Your task to perform on an android device: Empty the shopping cart on target.com. Image 0: 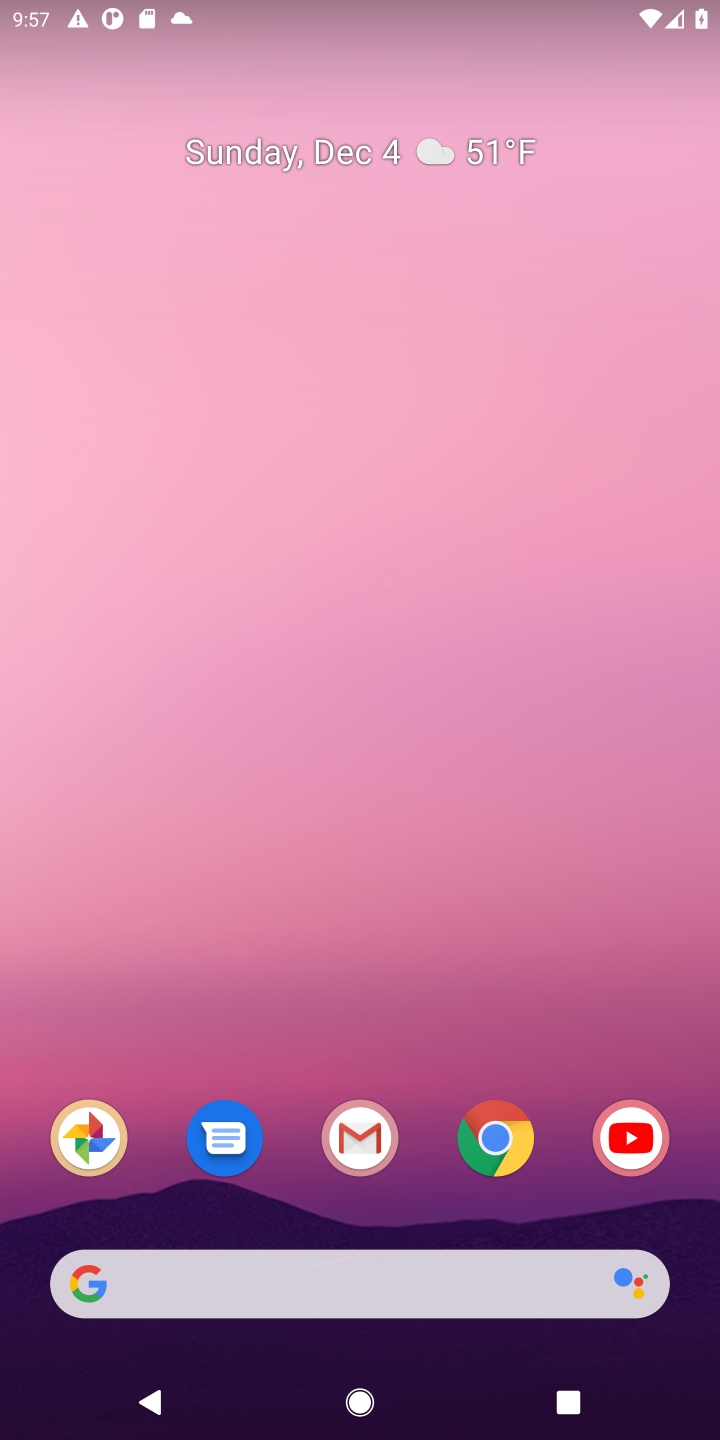
Step 0: click (488, 1154)
Your task to perform on an android device: Empty the shopping cart on target.com. Image 1: 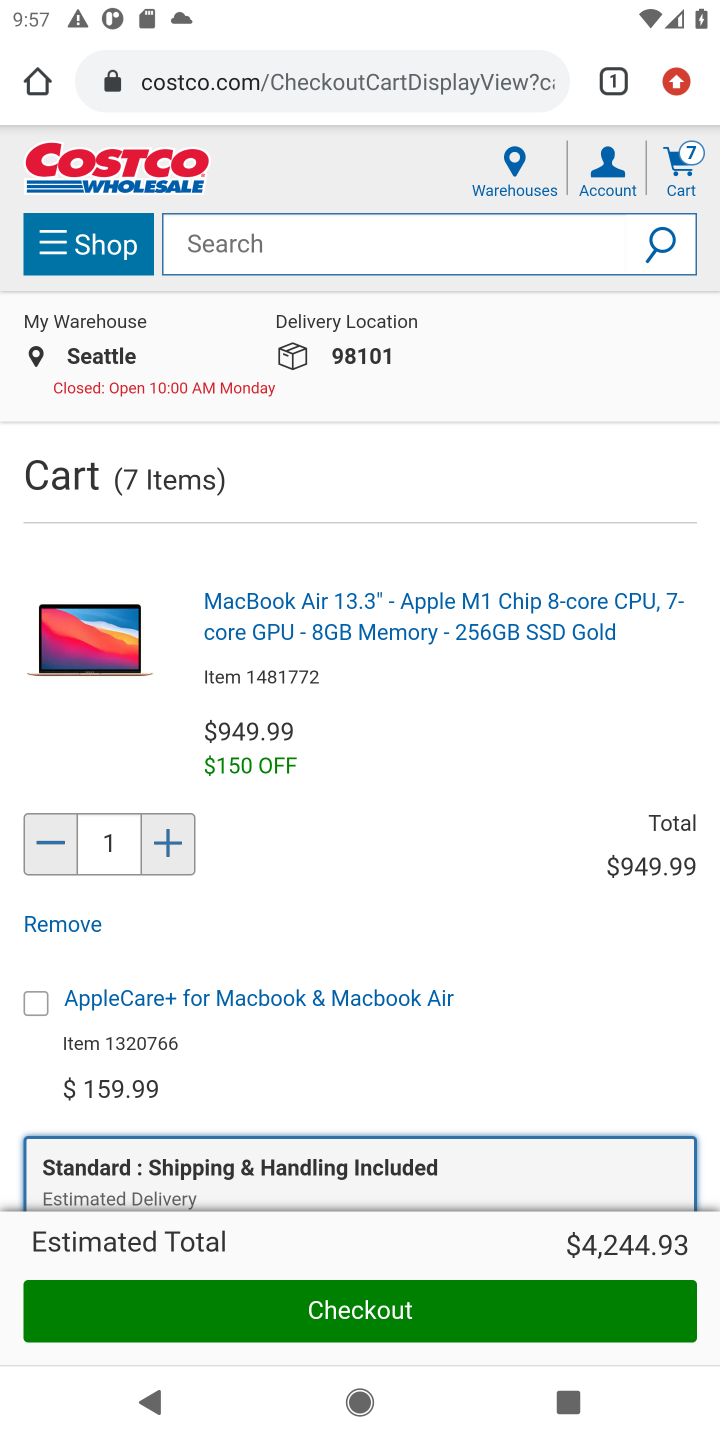
Step 1: click (388, 86)
Your task to perform on an android device: Empty the shopping cart on target.com. Image 2: 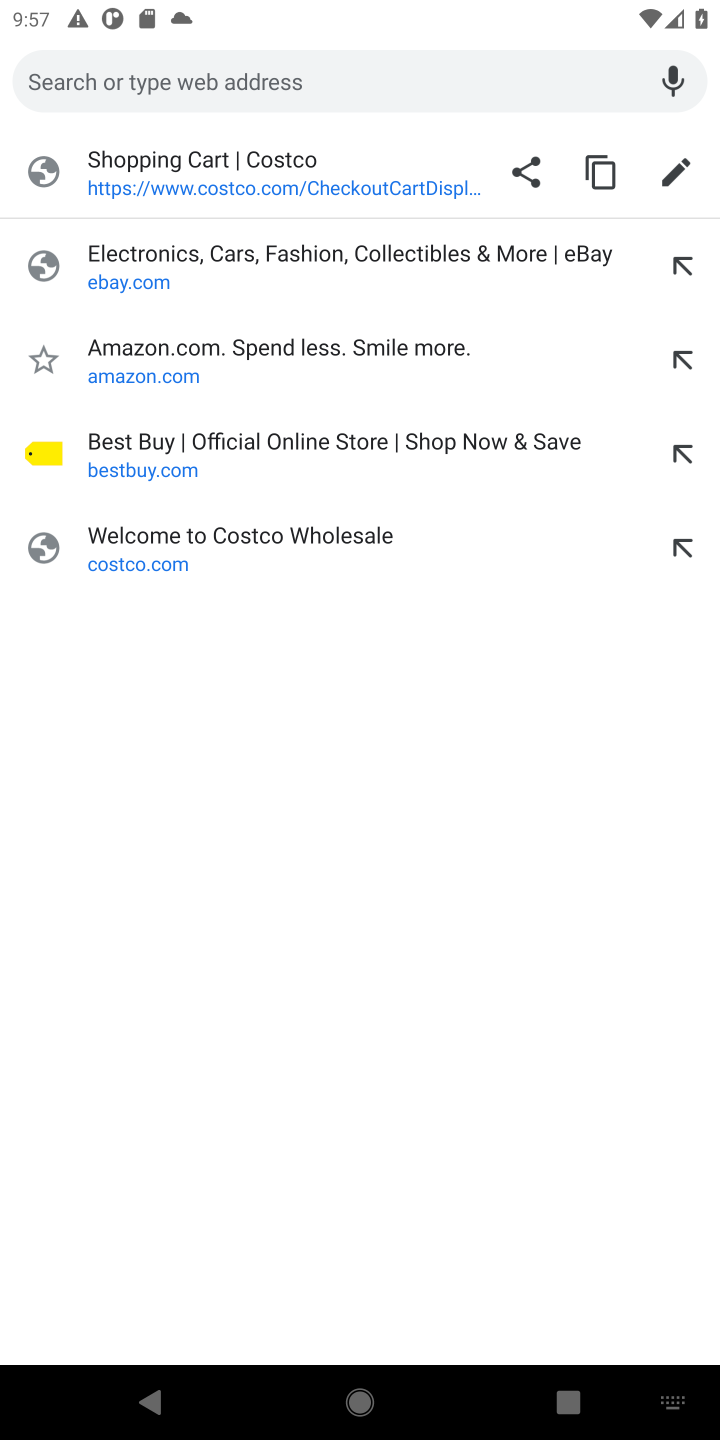
Step 2: type "target.com"
Your task to perform on an android device: Empty the shopping cart on target.com. Image 3: 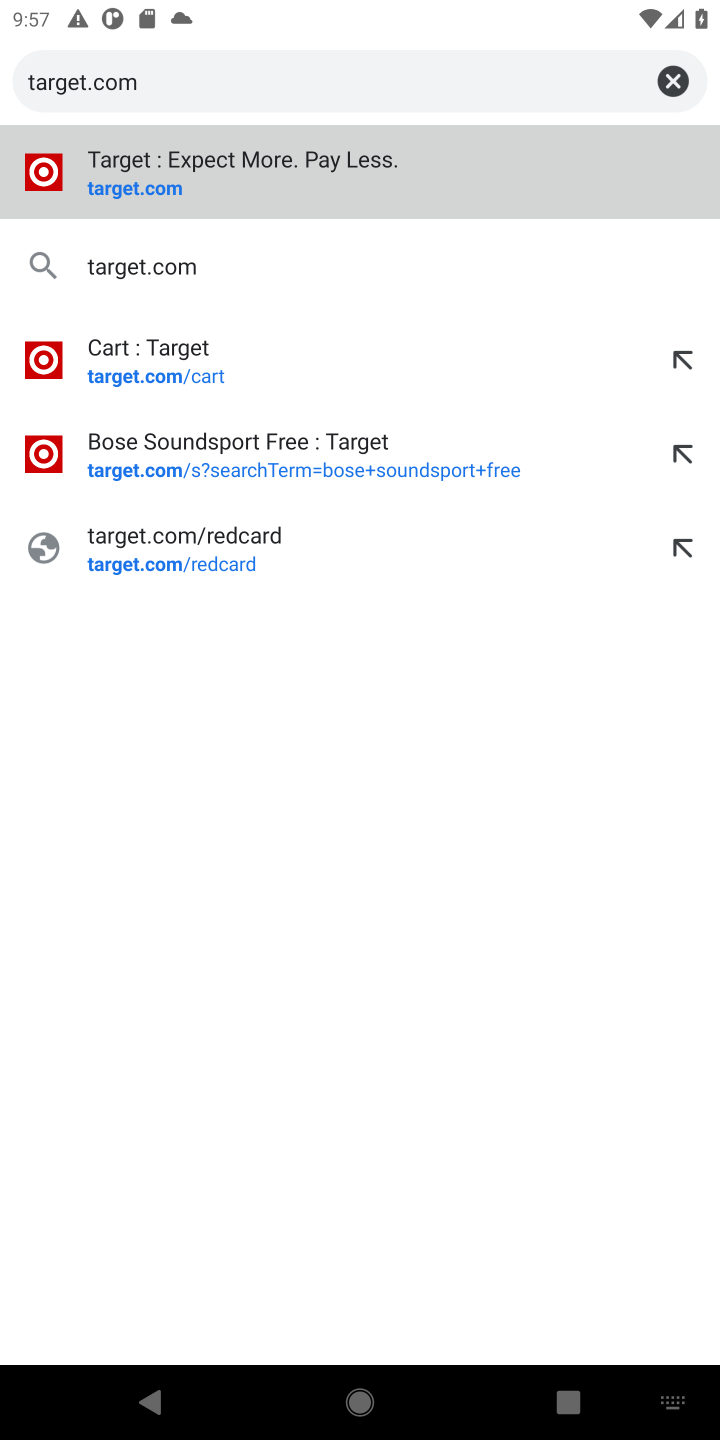
Step 3: press enter
Your task to perform on an android device: Empty the shopping cart on target.com. Image 4: 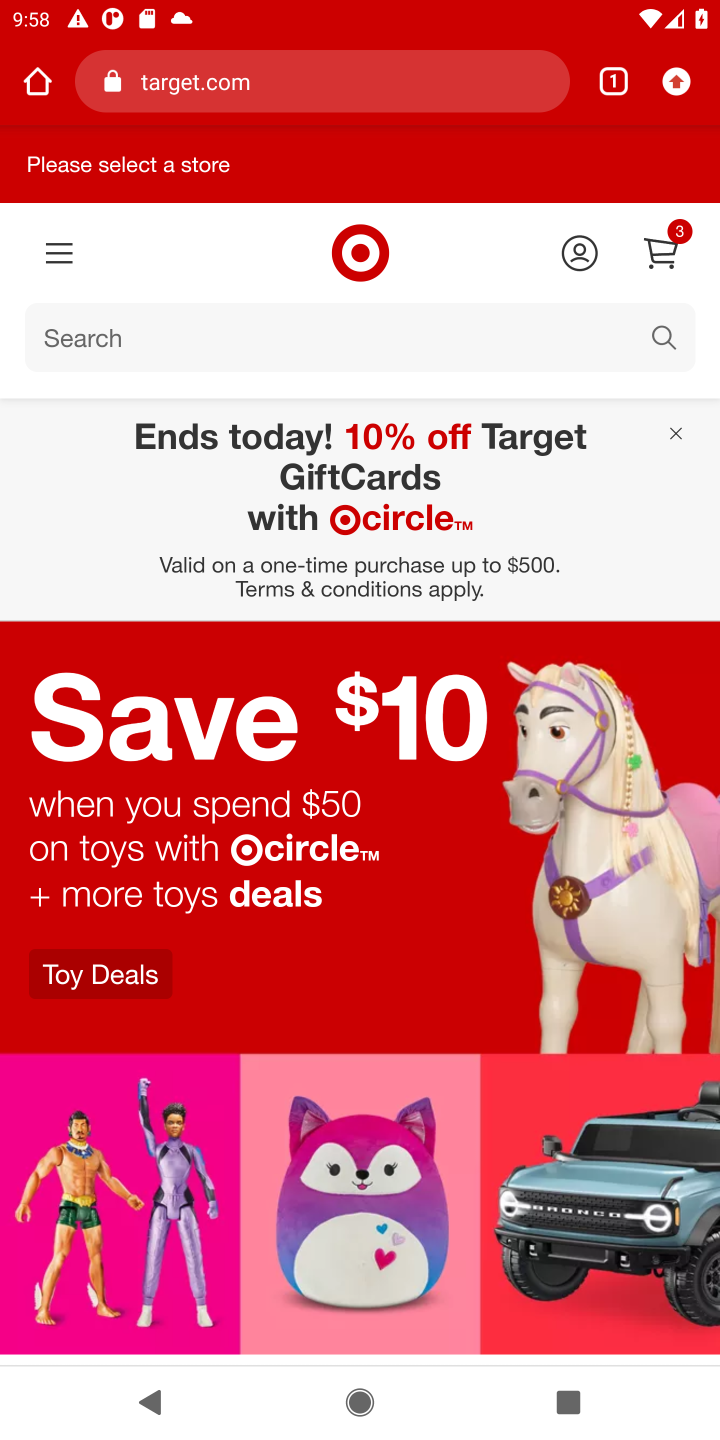
Step 4: click (665, 253)
Your task to perform on an android device: Empty the shopping cart on target.com. Image 5: 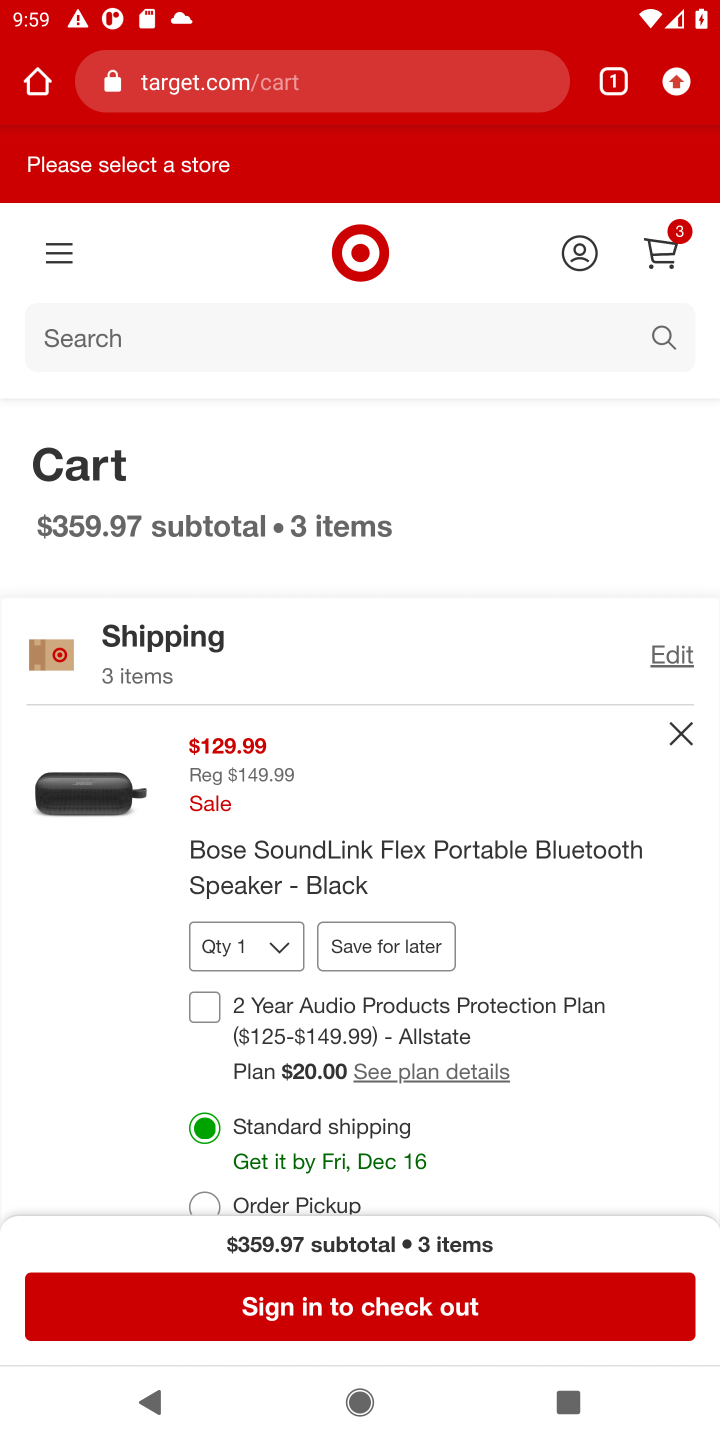
Step 5: drag from (649, 1094) to (688, 436)
Your task to perform on an android device: Empty the shopping cart on target.com. Image 6: 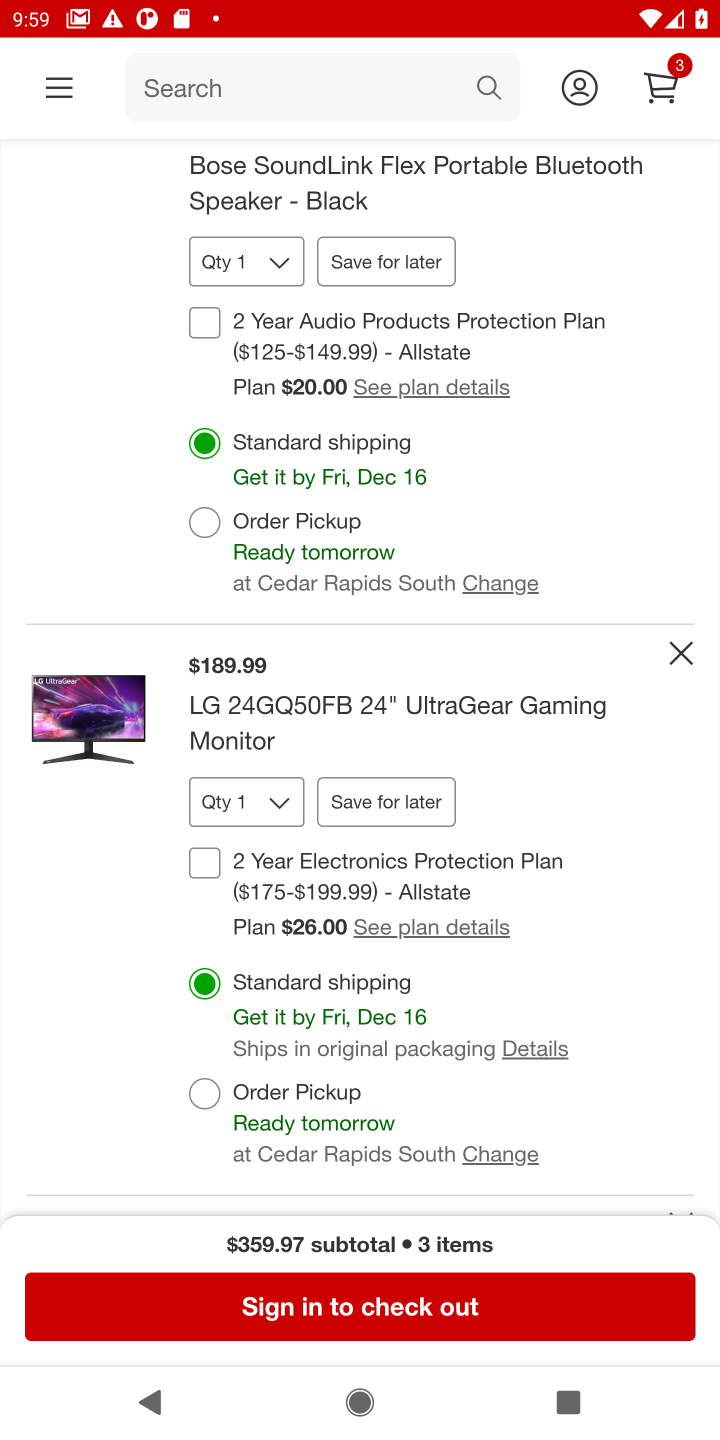
Step 6: drag from (643, 898) to (636, 440)
Your task to perform on an android device: Empty the shopping cart on target.com. Image 7: 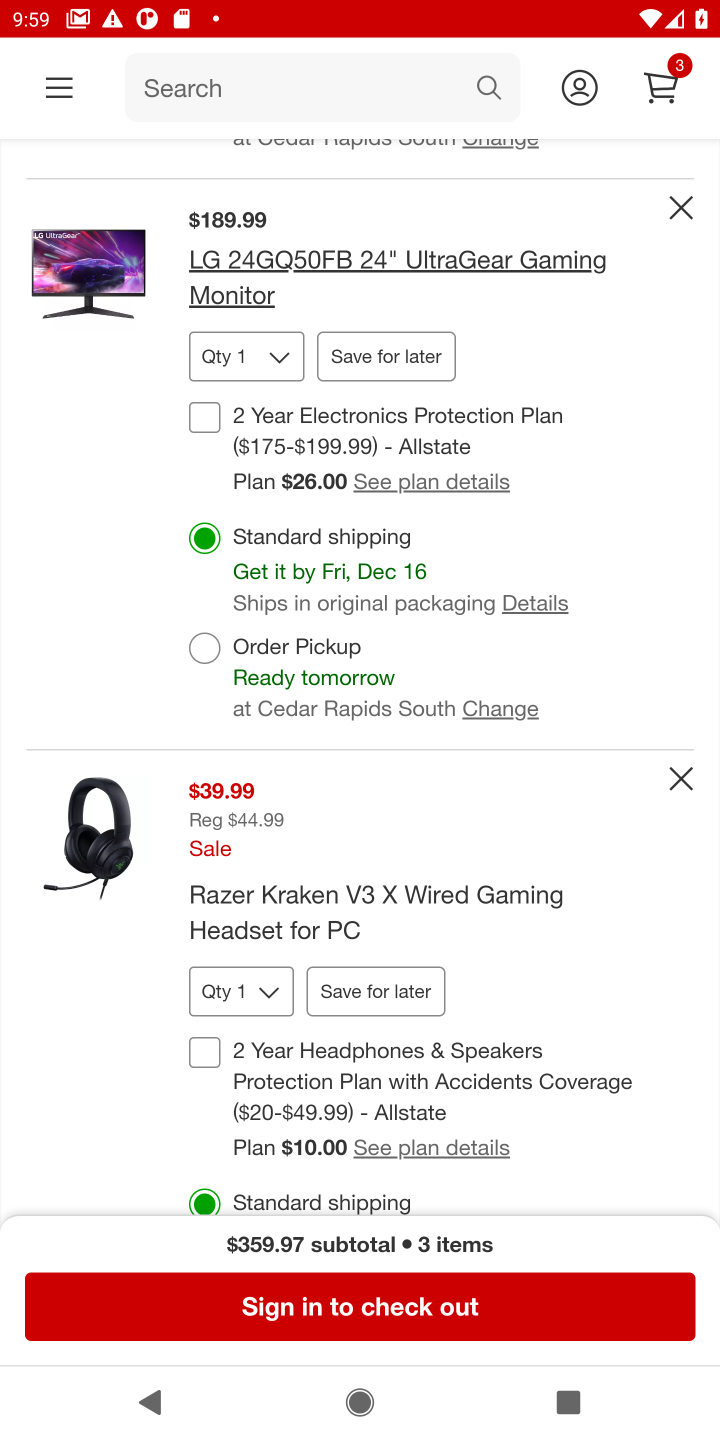
Step 7: click (671, 772)
Your task to perform on an android device: Empty the shopping cart on target.com. Image 8: 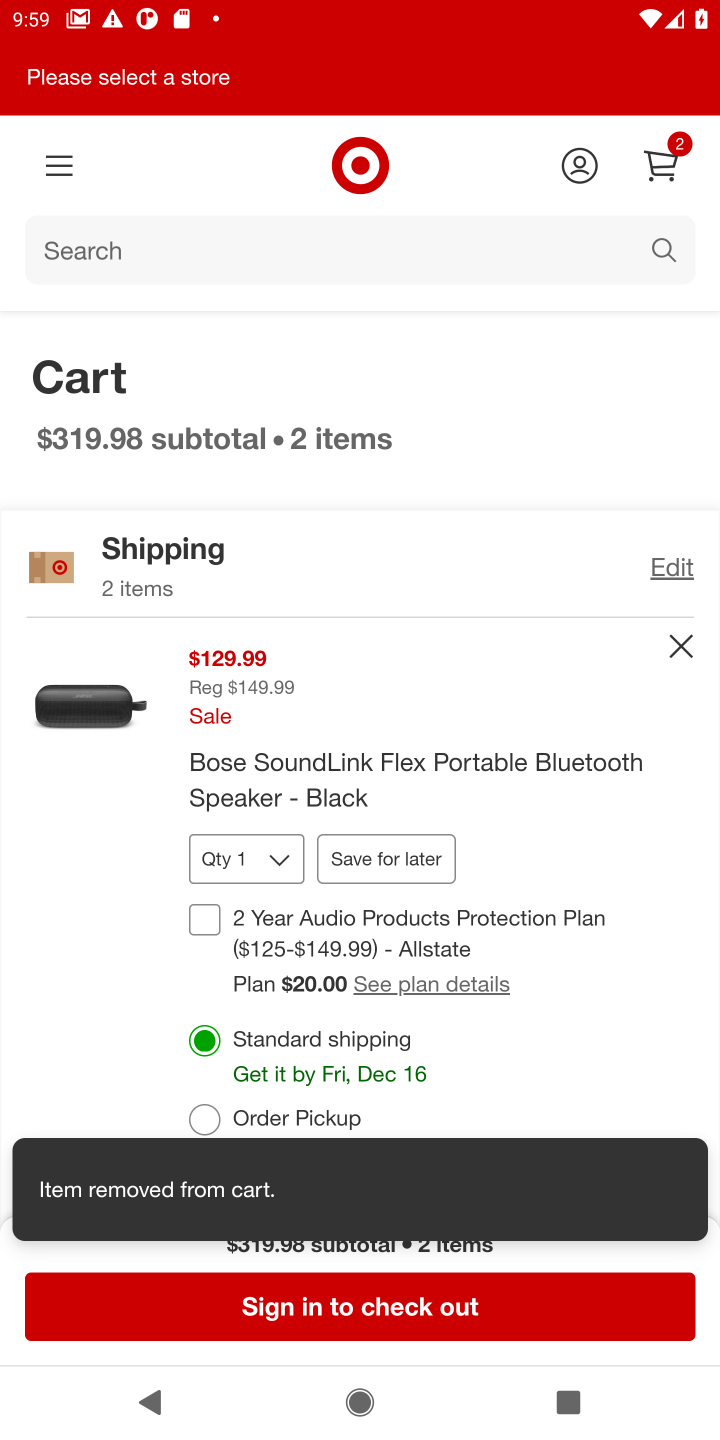
Step 8: click (686, 645)
Your task to perform on an android device: Empty the shopping cart on target.com. Image 9: 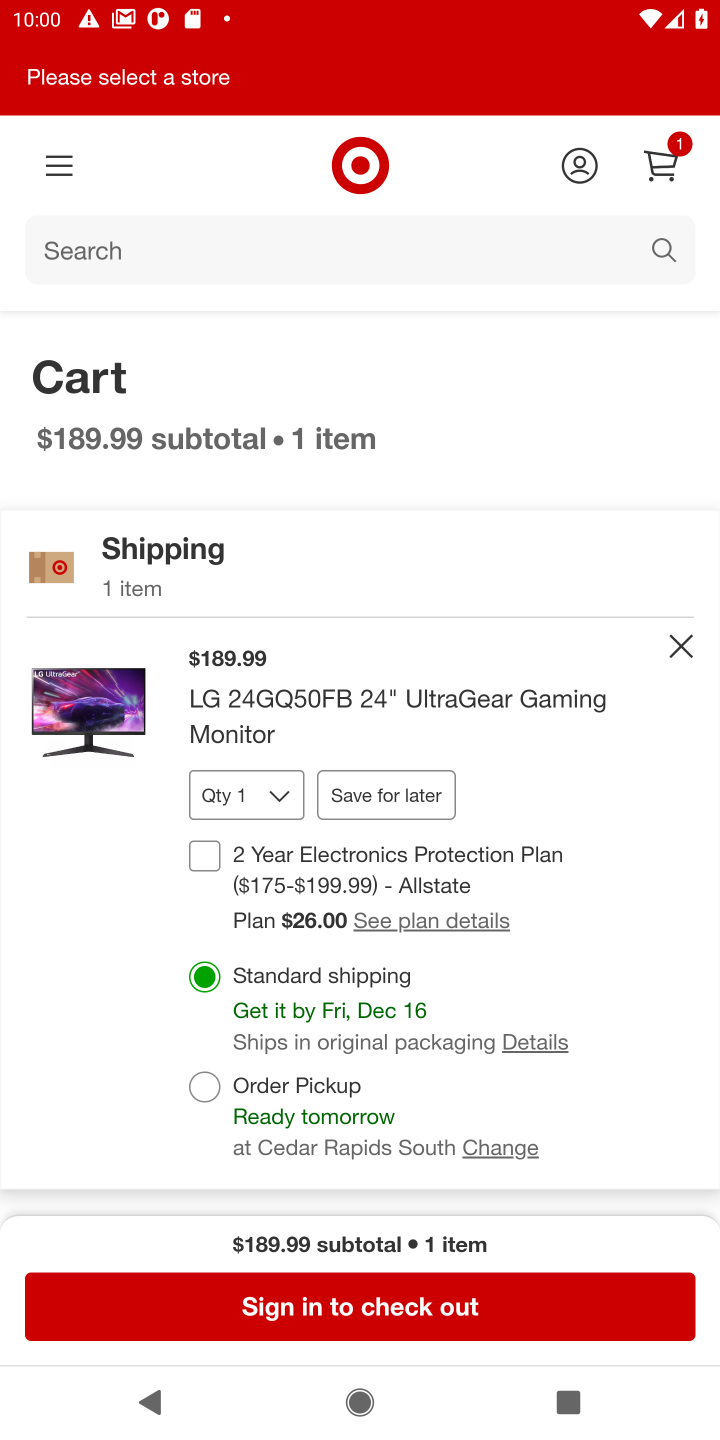
Step 9: click (686, 645)
Your task to perform on an android device: Empty the shopping cart on target.com. Image 10: 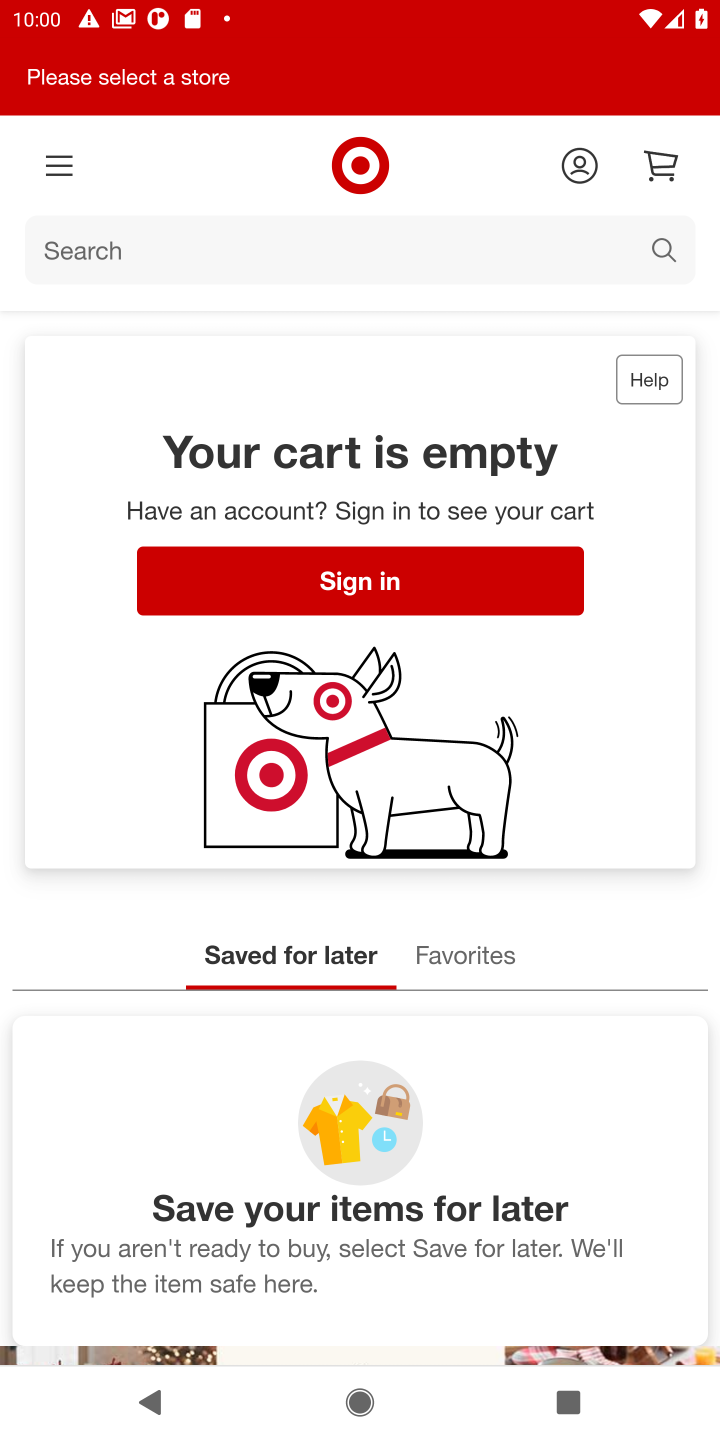
Step 10: task complete